Your task to perform on an android device: What is the recent news? Image 0: 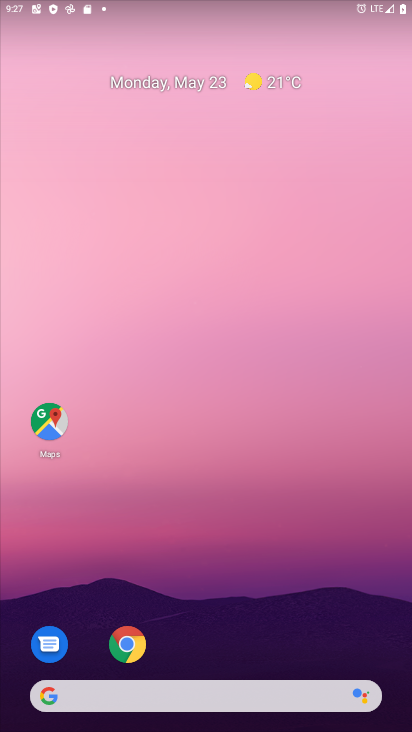
Step 0: click (248, 701)
Your task to perform on an android device: What is the recent news? Image 1: 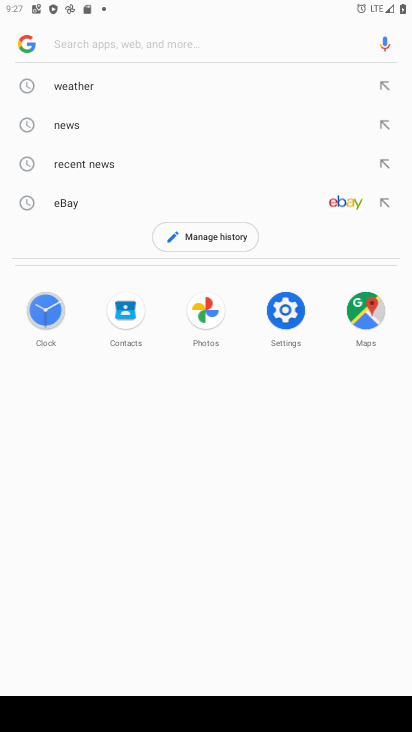
Step 1: click (134, 162)
Your task to perform on an android device: What is the recent news? Image 2: 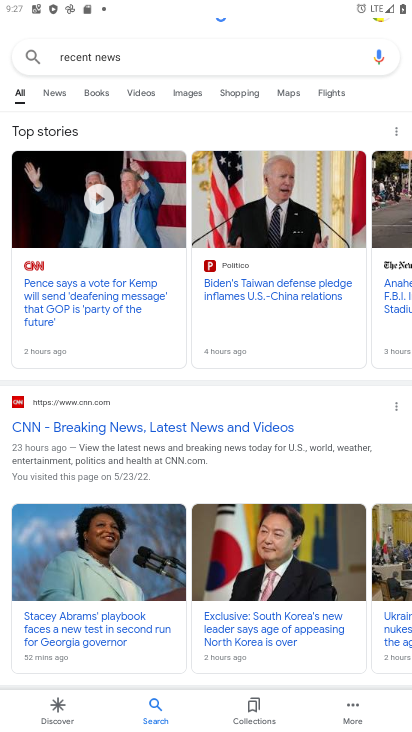
Step 2: task complete